Your task to perform on an android device: open chrome and create a bookmark for the current page Image 0: 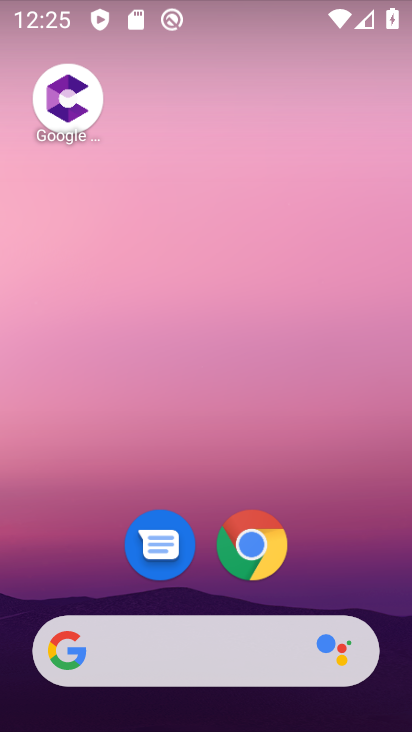
Step 0: drag from (278, 441) to (273, 146)
Your task to perform on an android device: open chrome and create a bookmark for the current page Image 1: 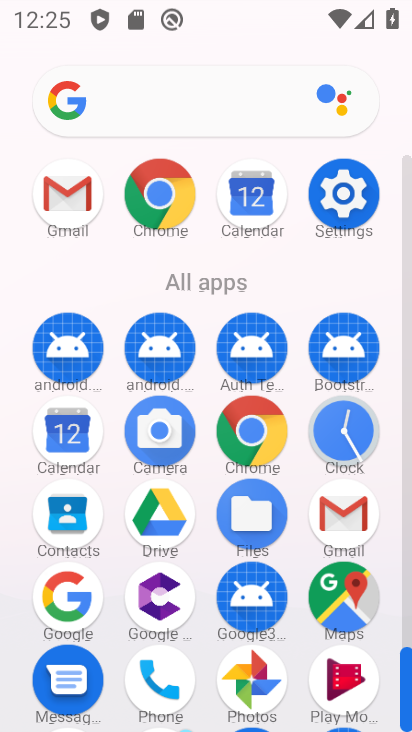
Step 1: click (248, 449)
Your task to perform on an android device: open chrome and create a bookmark for the current page Image 2: 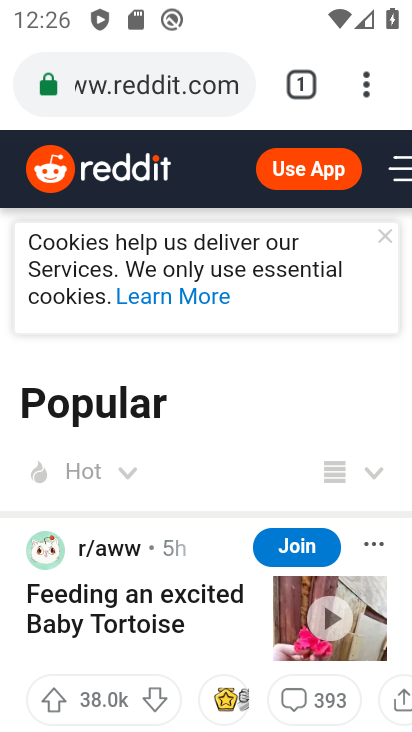
Step 2: click (356, 88)
Your task to perform on an android device: open chrome and create a bookmark for the current page Image 3: 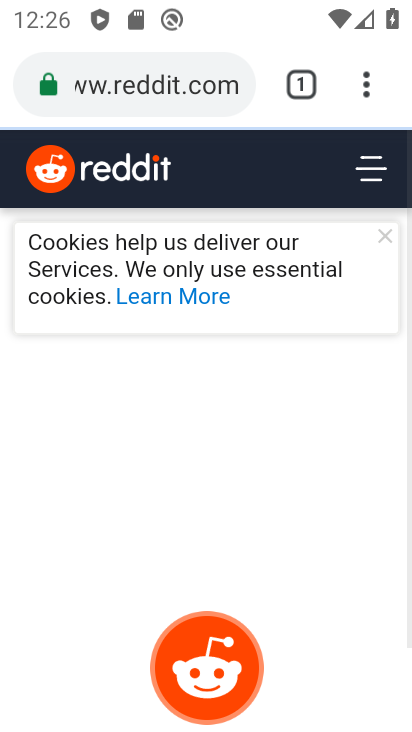
Step 3: click (367, 96)
Your task to perform on an android device: open chrome and create a bookmark for the current page Image 4: 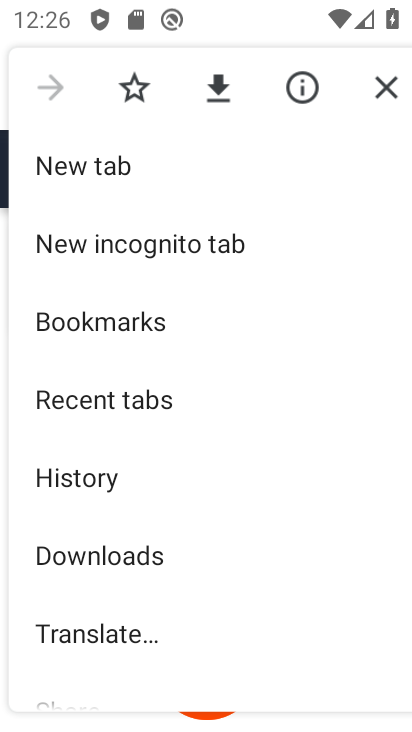
Step 4: click (131, 97)
Your task to perform on an android device: open chrome and create a bookmark for the current page Image 5: 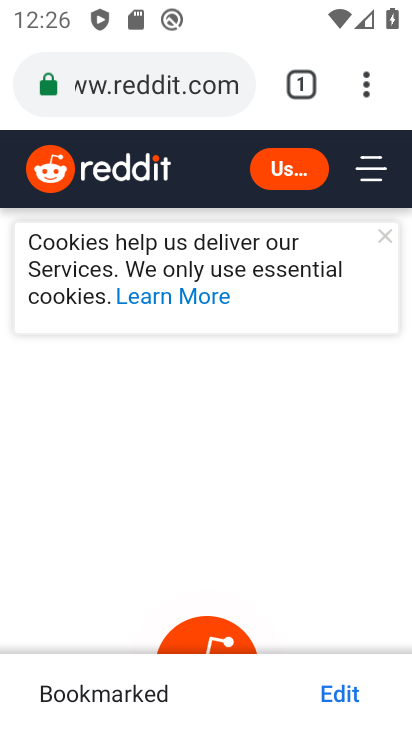
Step 5: task complete